Your task to perform on an android device: add a contact in the contacts app Image 0: 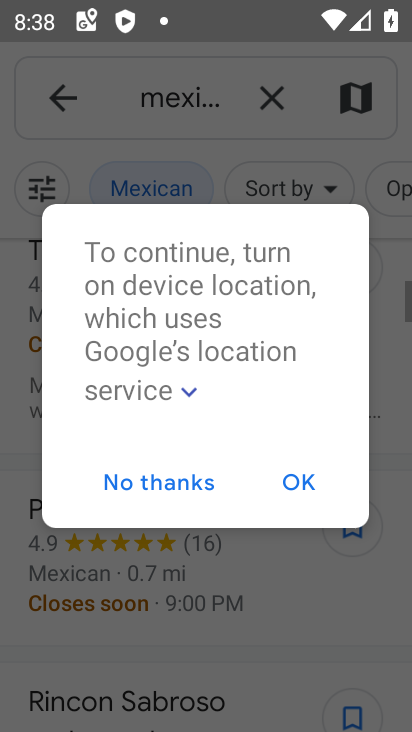
Step 0: press home button
Your task to perform on an android device: add a contact in the contacts app Image 1: 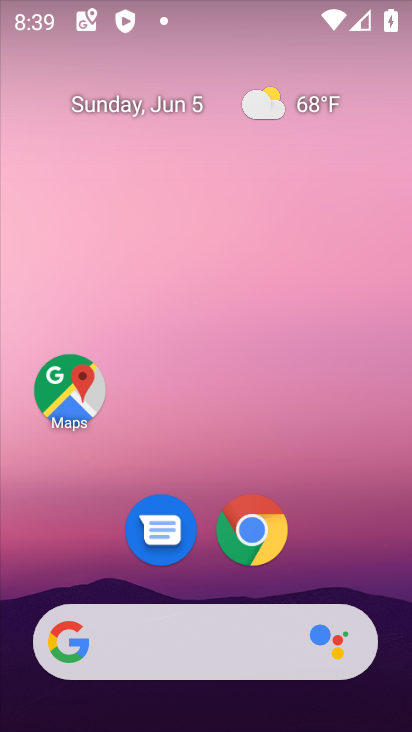
Step 1: drag from (396, 629) to (318, 41)
Your task to perform on an android device: add a contact in the contacts app Image 2: 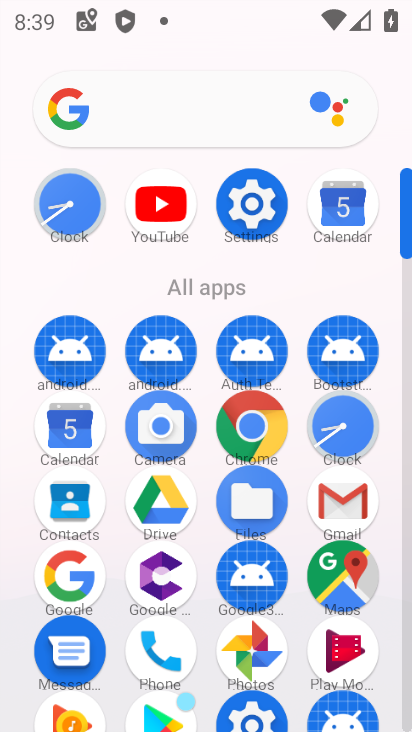
Step 2: click (407, 710)
Your task to perform on an android device: add a contact in the contacts app Image 3: 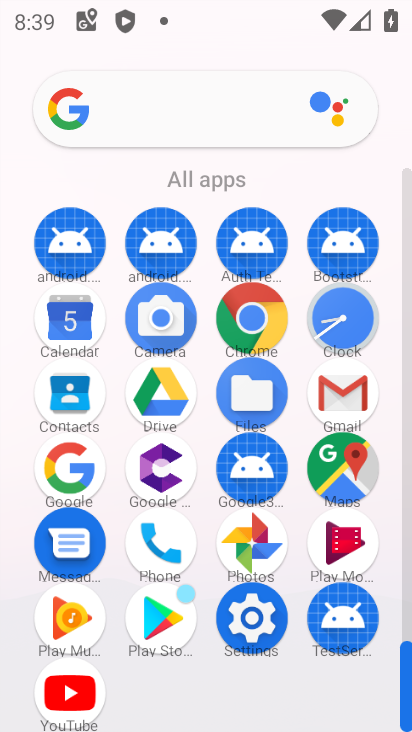
Step 3: click (66, 394)
Your task to perform on an android device: add a contact in the contacts app Image 4: 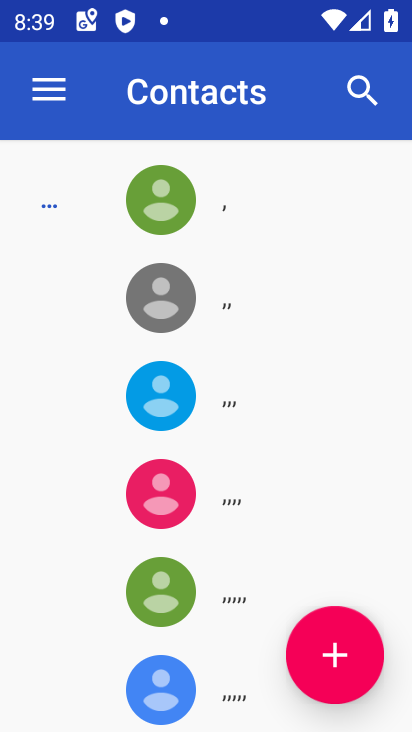
Step 4: click (341, 654)
Your task to perform on an android device: add a contact in the contacts app Image 5: 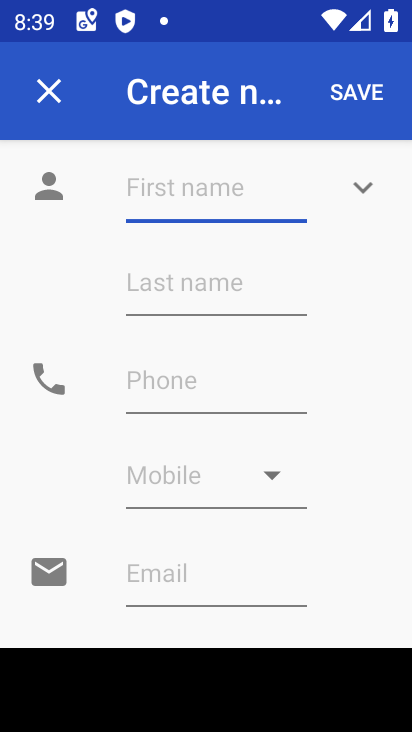
Step 5: type "yitrhjgfdg"
Your task to perform on an android device: add a contact in the contacts app Image 6: 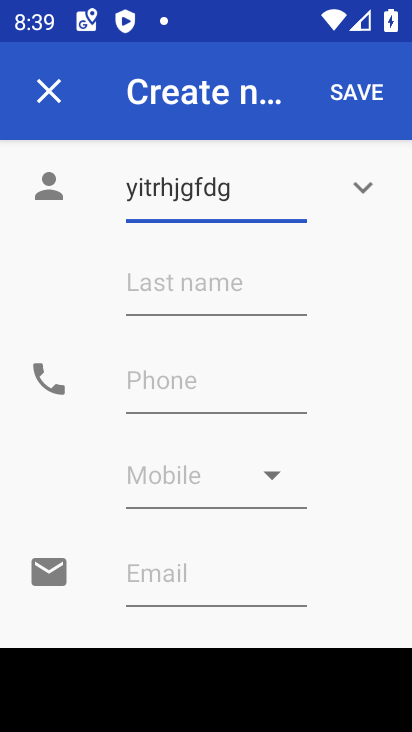
Step 6: click (140, 388)
Your task to perform on an android device: add a contact in the contacts app Image 7: 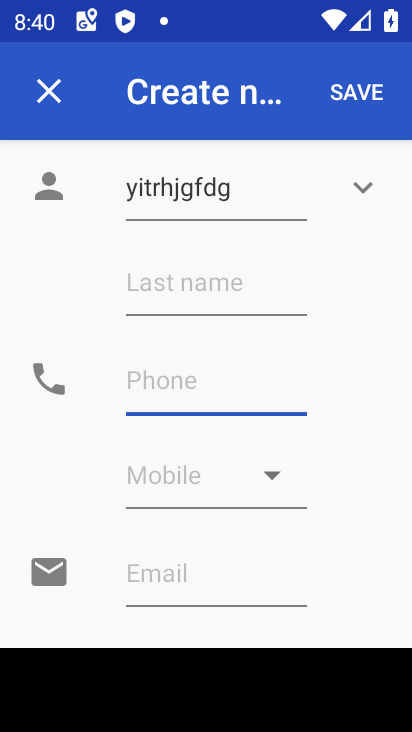
Step 7: type "96854345"
Your task to perform on an android device: add a contact in the contacts app Image 8: 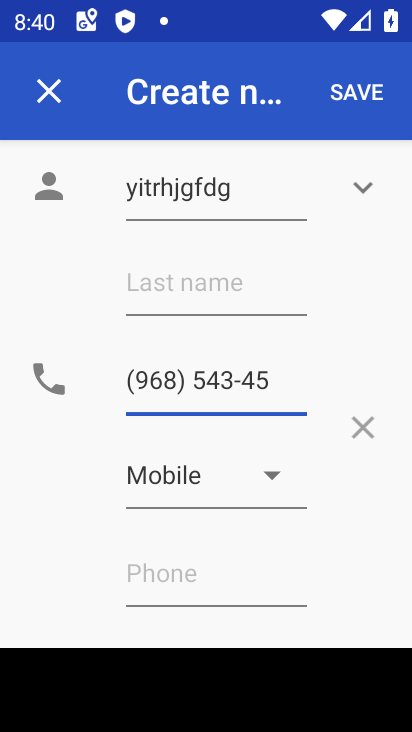
Step 8: click (270, 478)
Your task to perform on an android device: add a contact in the contacts app Image 9: 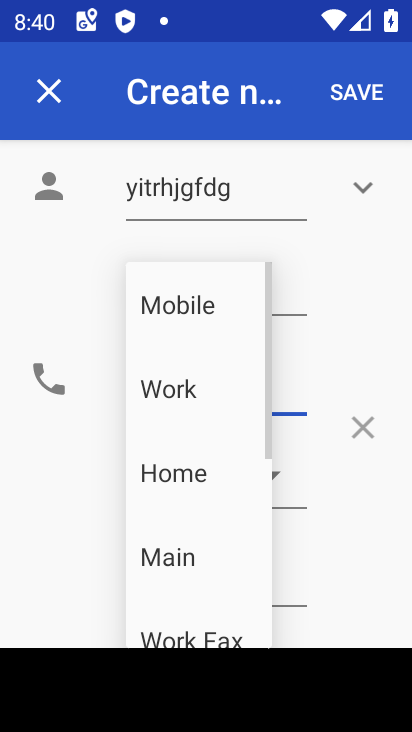
Step 9: click (155, 381)
Your task to perform on an android device: add a contact in the contacts app Image 10: 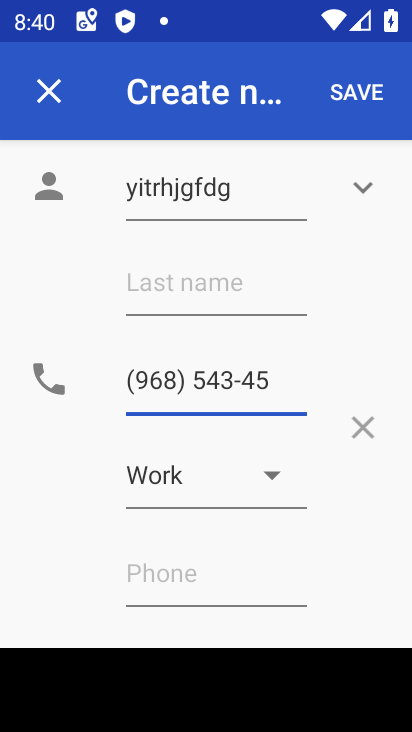
Step 10: click (352, 89)
Your task to perform on an android device: add a contact in the contacts app Image 11: 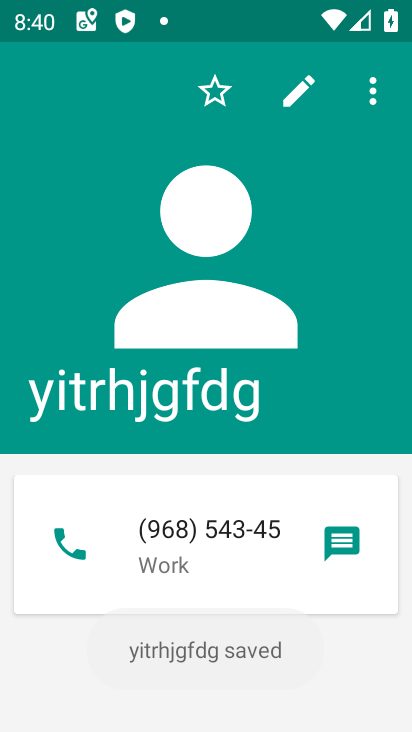
Step 11: task complete